Your task to perform on an android device: open app "Fetch Rewards" (install if not already installed) Image 0: 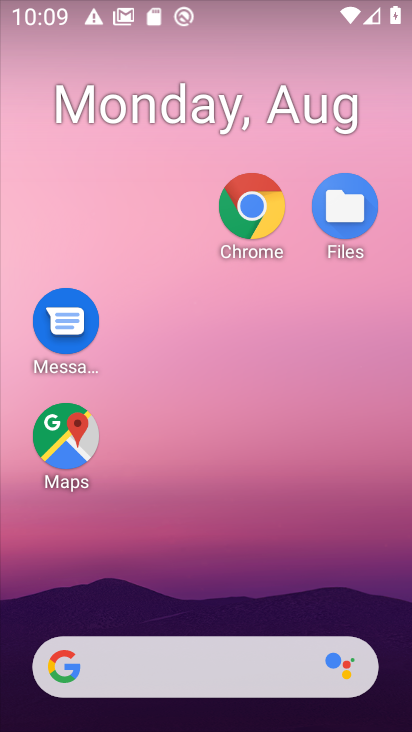
Step 0: drag from (177, 626) to (101, 31)
Your task to perform on an android device: open app "Fetch Rewards" (install if not already installed) Image 1: 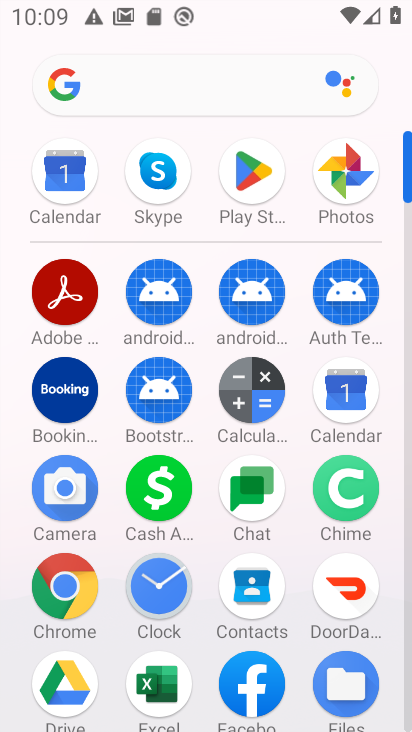
Step 1: click (263, 174)
Your task to perform on an android device: open app "Fetch Rewards" (install if not already installed) Image 2: 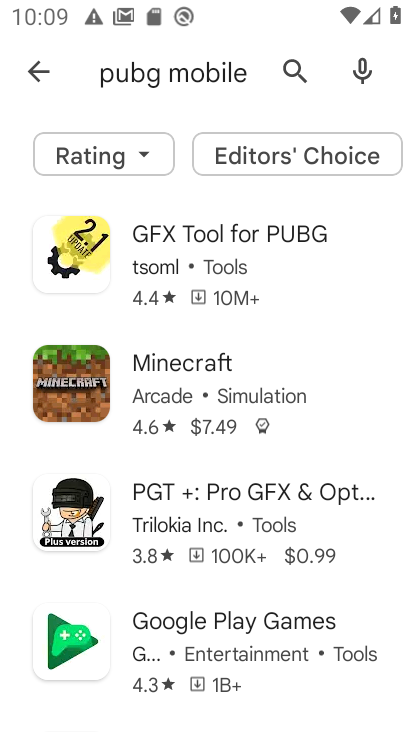
Step 2: click (289, 55)
Your task to perform on an android device: open app "Fetch Rewards" (install if not already installed) Image 3: 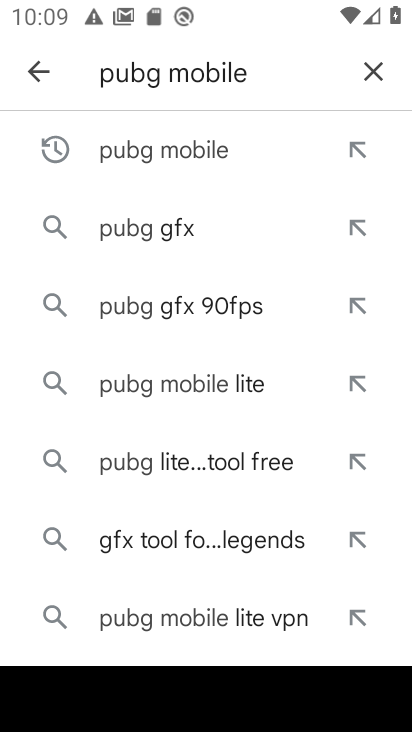
Step 3: click (372, 69)
Your task to perform on an android device: open app "Fetch Rewards" (install if not already installed) Image 4: 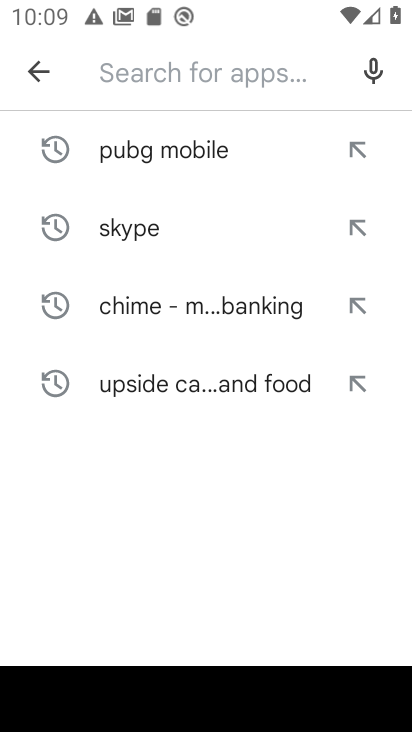
Step 4: type "fetch rewards"
Your task to perform on an android device: open app "Fetch Rewards" (install if not already installed) Image 5: 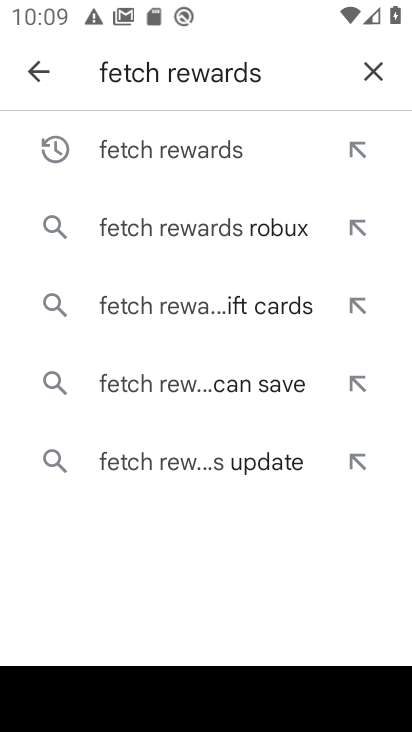
Step 5: click (256, 154)
Your task to perform on an android device: open app "Fetch Rewards" (install if not already installed) Image 6: 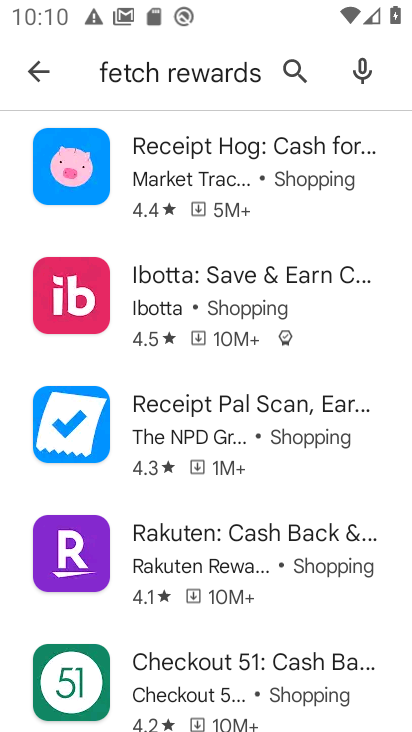
Step 6: task complete